Your task to perform on an android device: Open Youtube and go to the subscriptions tab Image 0: 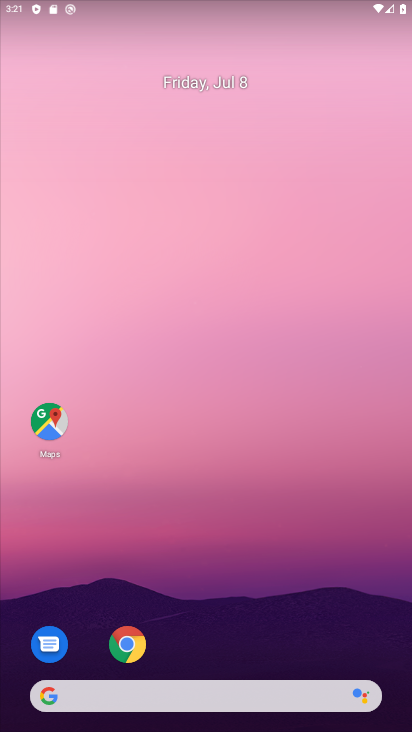
Step 0: drag from (176, 114) to (178, 205)
Your task to perform on an android device: Open Youtube and go to the subscriptions tab Image 1: 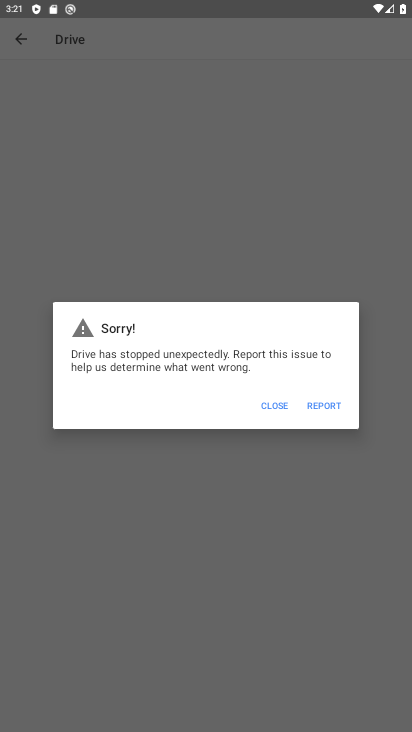
Step 1: drag from (199, 617) to (132, 247)
Your task to perform on an android device: Open Youtube and go to the subscriptions tab Image 2: 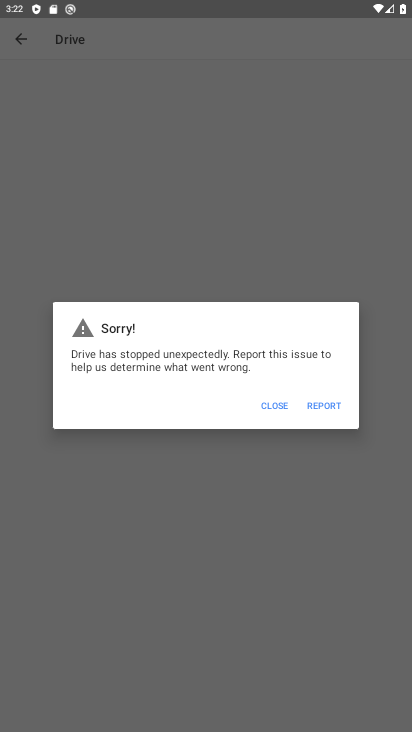
Step 2: click (260, 407)
Your task to perform on an android device: Open Youtube and go to the subscriptions tab Image 3: 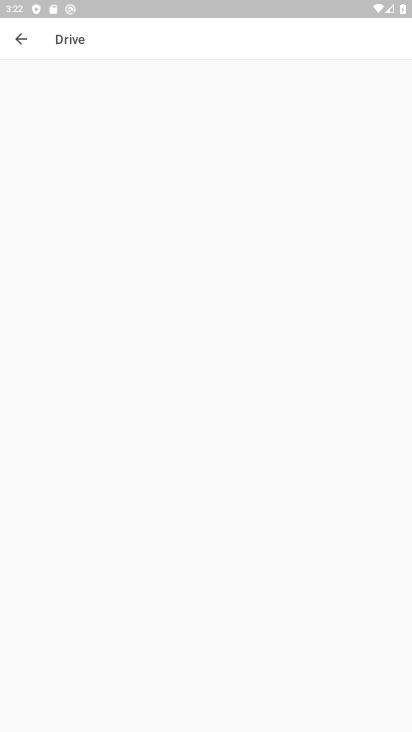
Step 3: click (272, 409)
Your task to perform on an android device: Open Youtube and go to the subscriptions tab Image 4: 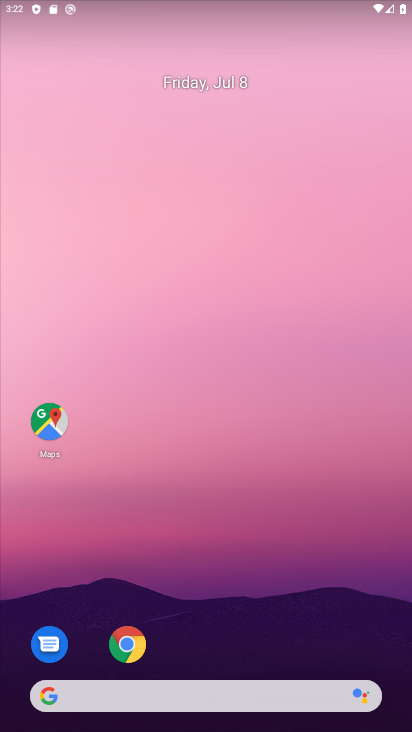
Step 4: drag from (227, 716) to (113, 335)
Your task to perform on an android device: Open Youtube and go to the subscriptions tab Image 5: 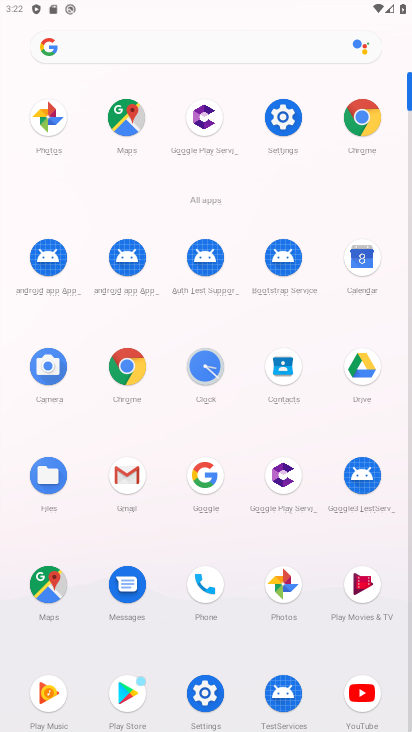
Step 5: drag from (377, 655) to (269, 290)
Your task to perform on an android device: Open Youtube and go to the subscriptions tab Image 6: 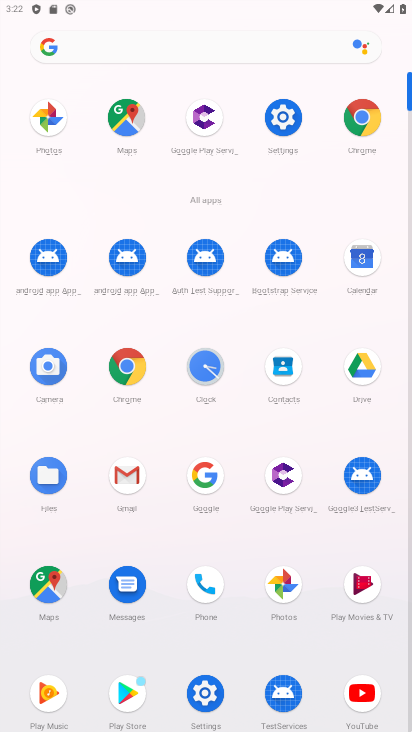
Step 6: click (365, 690)
Your task to perform on an android device: Open Youtube and go to the subscriptions tab Image 7: 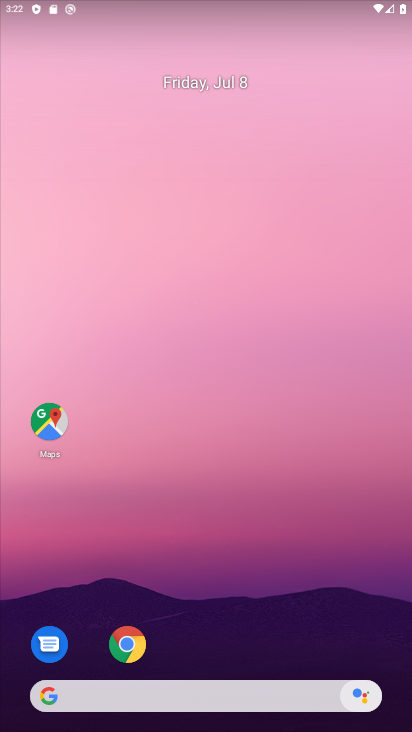
Step 7: click (364, 687)
Your task to perform on an android device: Open Youtube and go to the subscriptions tab Image 8: 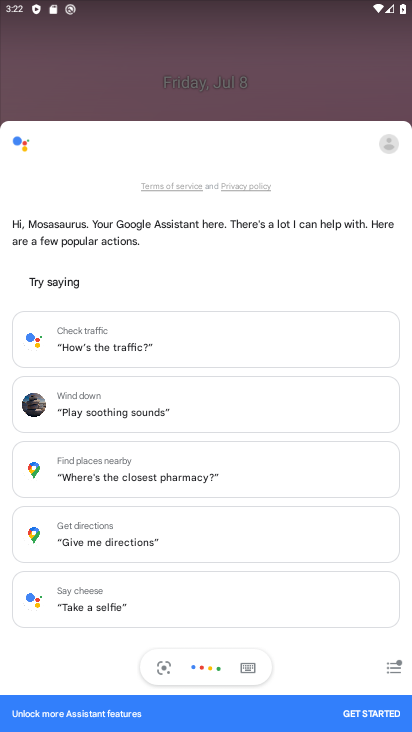
Step 8: click (190, 76)
Your task to perform on an android device: Open Youtube and go to the subscriptions tab Image 9: 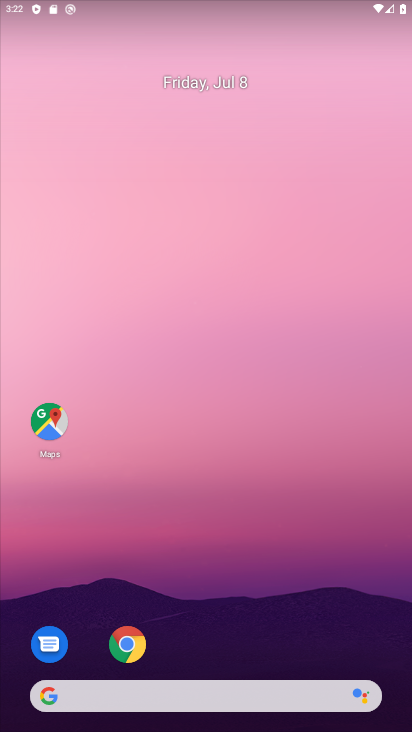
Step 9: drag from (228, 624) to (155, 23)
Your task to perform on an android device: Open Youtube and go to the subscriptions tab Image 10: 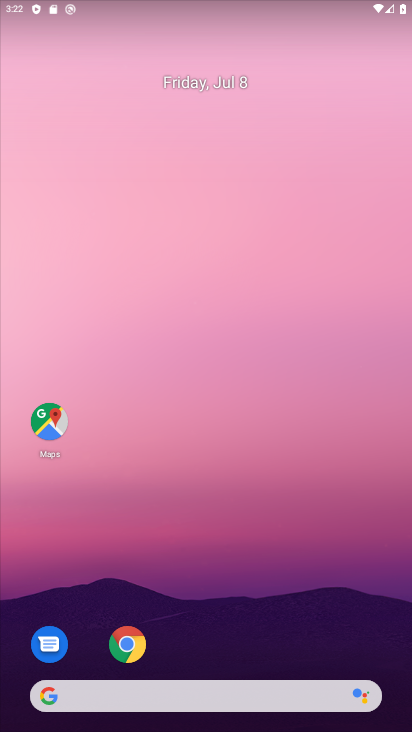
Step 10: drag from (221, 367) to (179, 6)
Your task to perform on an android device: Open Youtube and go to the subscriptions tab Image 11: 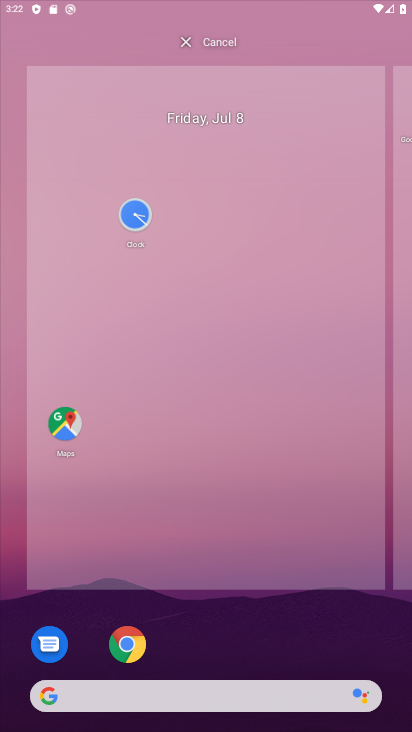
Step 11: drag from (318, 660) to (226, 217)
Your task to perform on an android device: Open Youtube and go to the subscriptions tab Image 12: 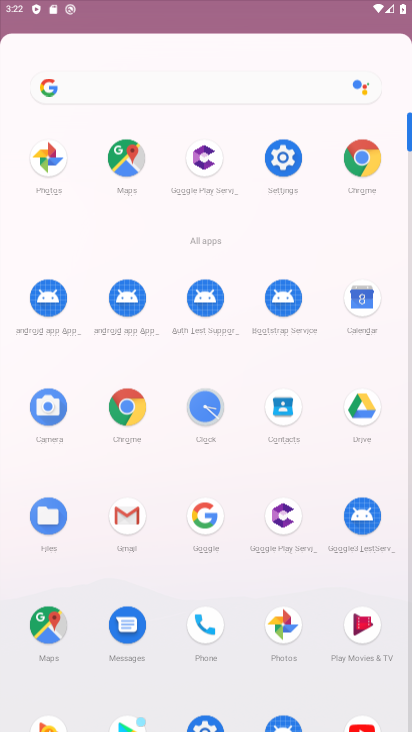
Step 12: click (261, 12)
Your task to perform on an android device: Open Youtube and go to the subscriptions tab Image 13: 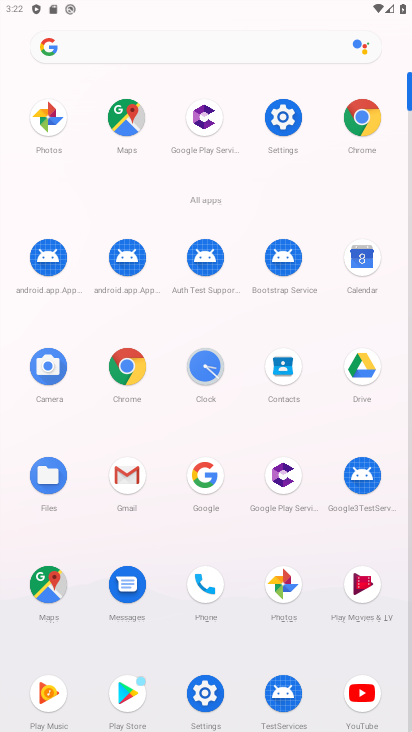
Step 13: click (218, 170)
Your task to perform on an android device: Open Youtube and go to the subscriptions tab Image 14: 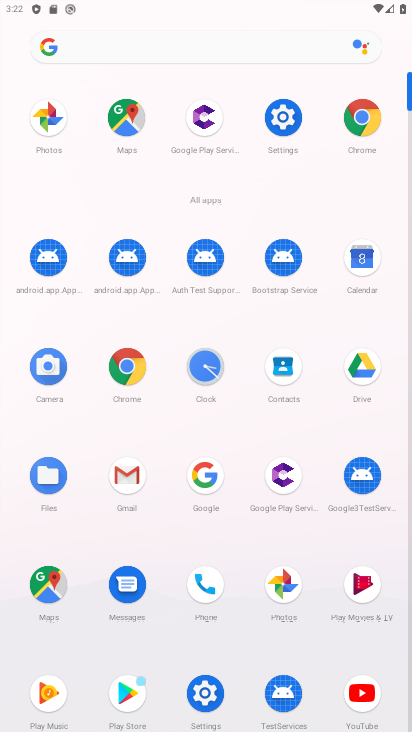
Step 14: click (348, 697)
Your task to perform on an android device: Open Youtube and go to the subscriptions tab Image 15: 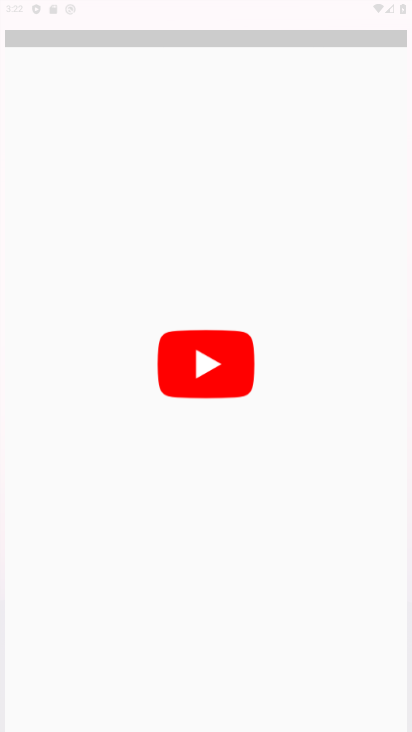
Step 15: click (356, 684)
Your task to perform on an android device: Open Youtube and go to the subscriptions tab Image 16: 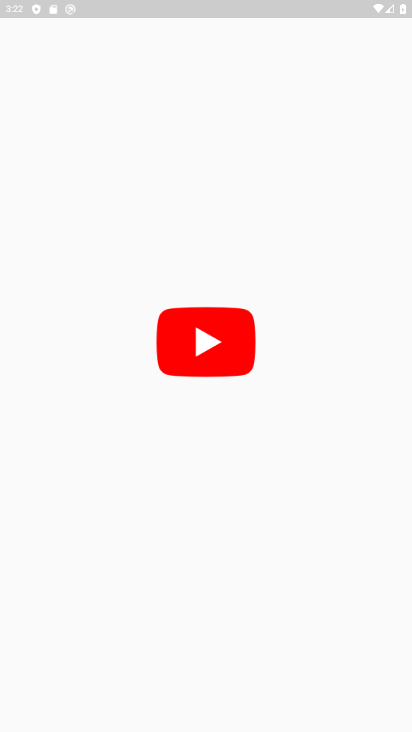
Step 16: click (358, 684)
Your task to perform on an android device: Open Youtube and go to the subscriptions tab Image 17: 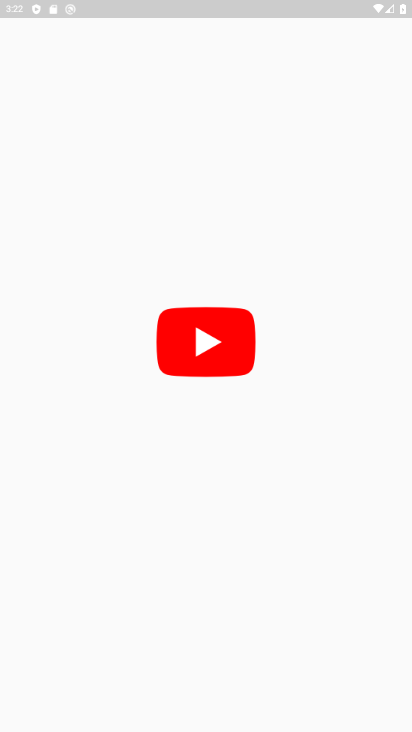
Step 17: click (358, 684)
Your task to perform on an android device: Open Youtube and go to the subscriptions tab Image 18: 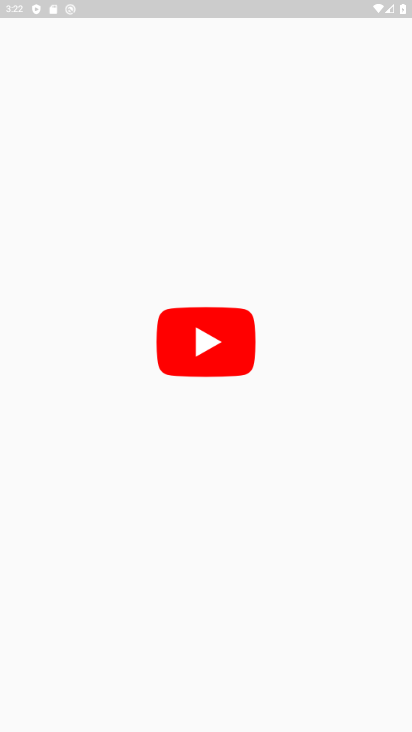
Step 18: click (361, 691)
Your task to perform on an android device: Open Youtube and go to the subscriptions tab Image 19: 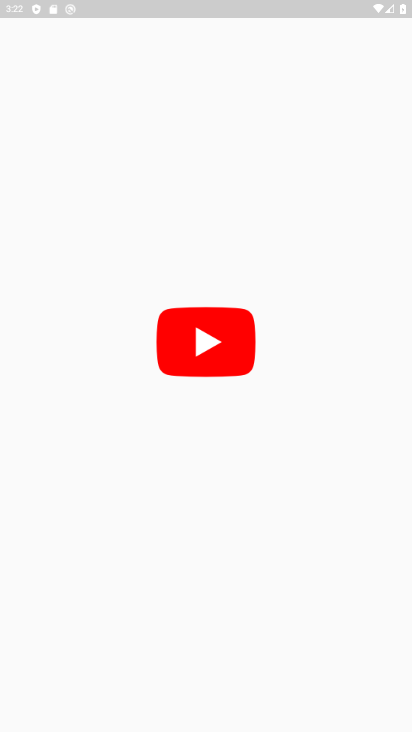
Step 19: click (361, 697)
Your task to perform on an android device: Open Youtube and go to the subscriptions tab Image 20: 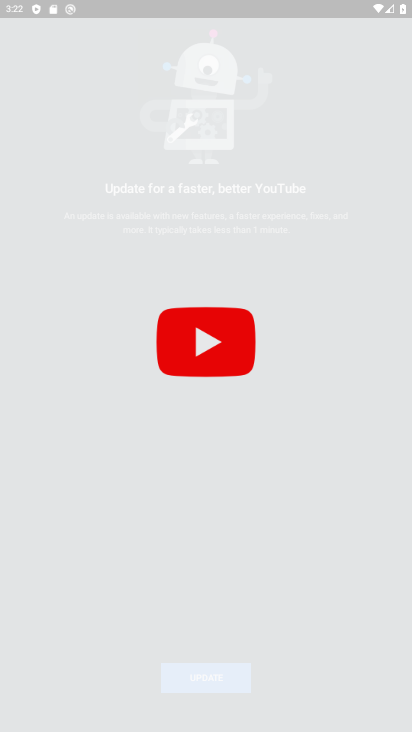
Step 20: click (361, 700)
Your task to perform on an android device: Open Youtube and go to the subscriptions tab Image 21: 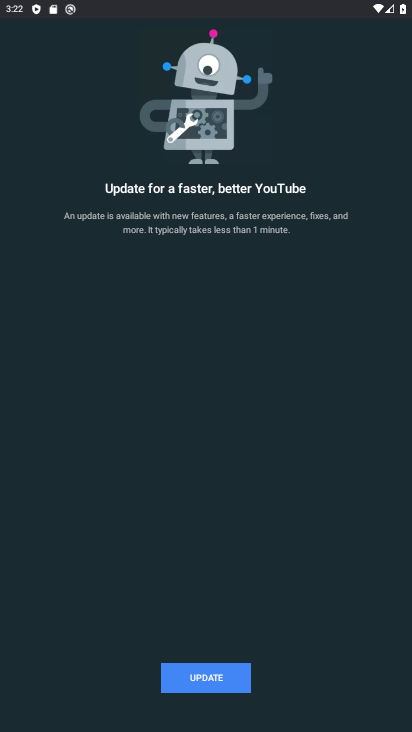
Step 21: task complete